Your task to perform on an android device: Open sound settings Image 0: 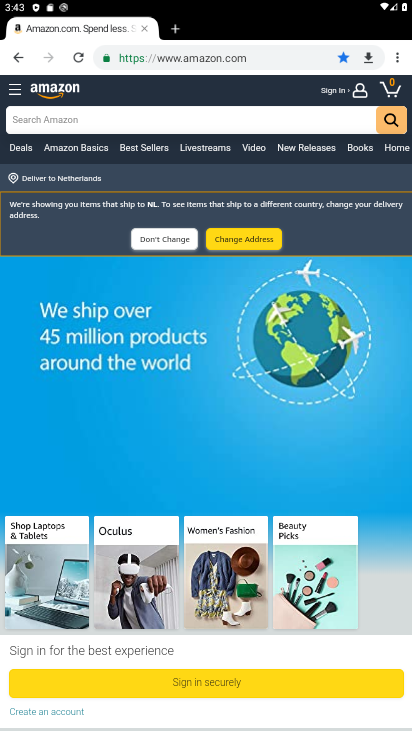
Step 0: press home button
Your task to perform on an android device: Open sound settings Image 1: 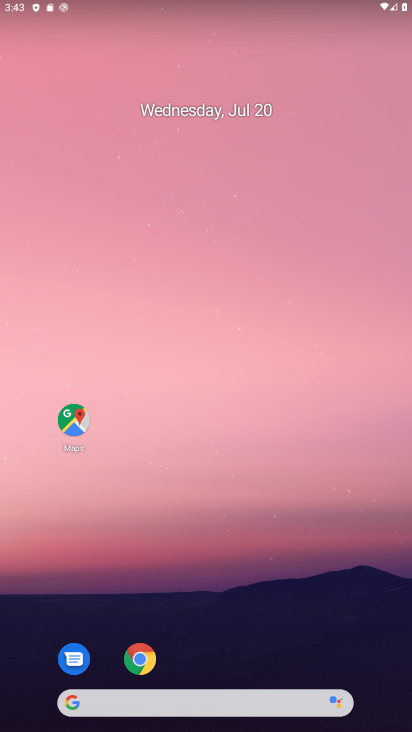
Step 1: drag from (150, 666) to (211, 249)
Your task to perform on an android device: Open sound settings Image 2: 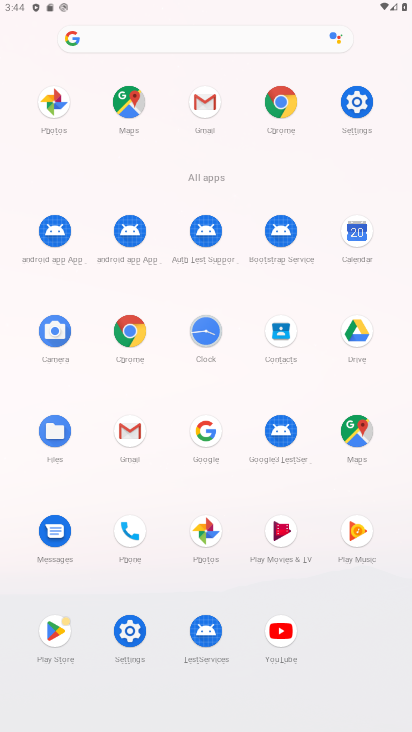
Step 2: click (138, 629)
Your task to perform on an android device: Open sound settings Image 3: 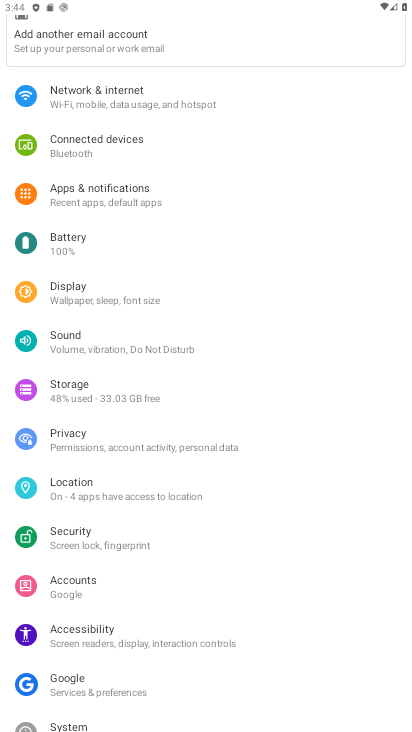
Step 3: click (101, 328)
Your task to perform on an android device: Open sound settings Image 4: 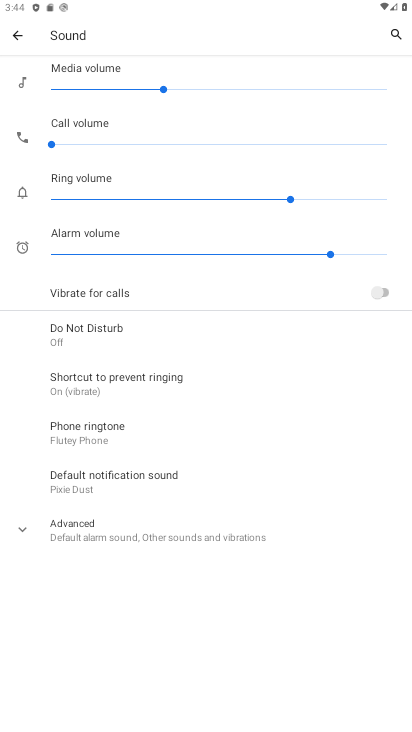
Step 4: task complete